Your task to perform on an android device: turn off wifi Image 0: 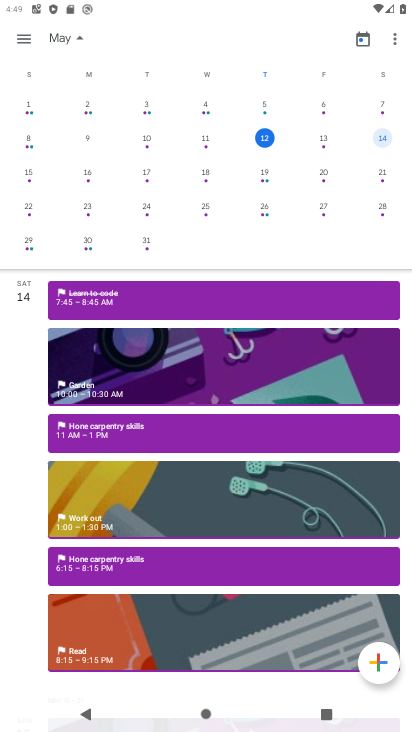
Step 0: drag from (272, 7) to (235, 523)
Your task to perform on an android device: turn off wifi Image 1: 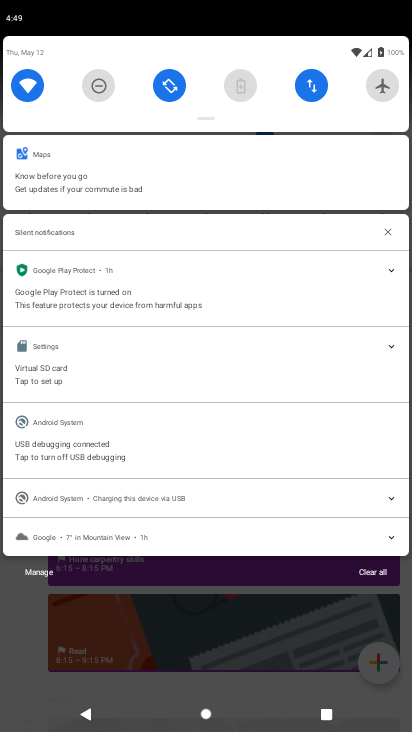
Step 1: click (24, 80)
Your task to perform on an android device: turn off wifi Image 2: 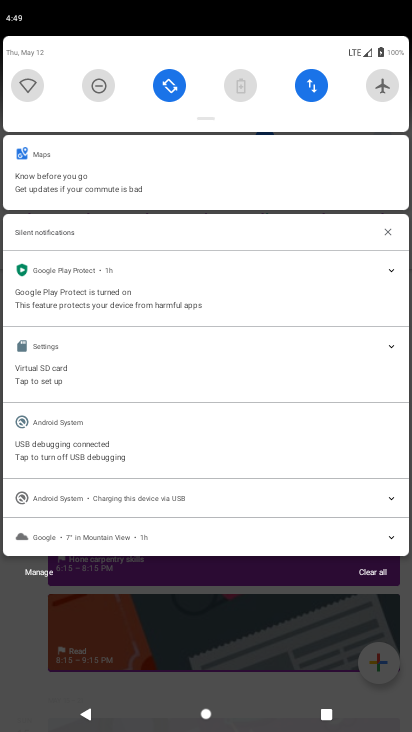
Step 2: task complete